Your task to perform on an android device: install app "VLC for Android" Image 0: 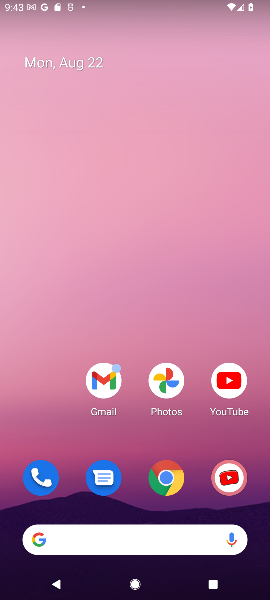
Step 0: drag from (126, 513) to (136, 70)
Your task to perform on an android device: install app "VLC for Android" Image 1: 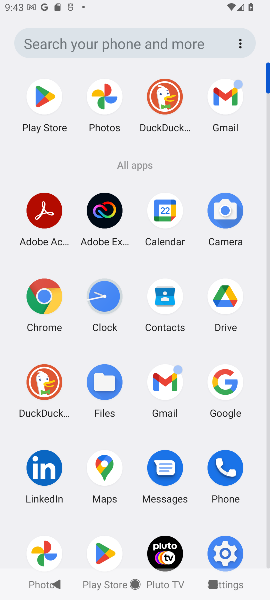
Step 1: click (31, 119)
Your task to perform on an android device: install app "VLC for Android" Image 2: 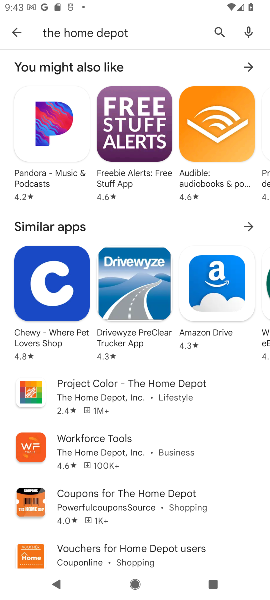
Step 2: click (214, 39)
Your task to perform on an android device: install app "VLC for Android" Image 3: 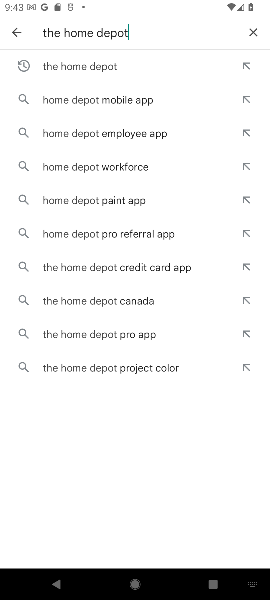
Step 3: click (248, 31)
Your task to perform on an android device: install app "VLC for Android" Image 4: 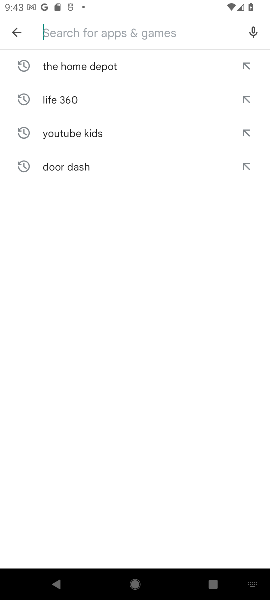
Step 4: type "vlc"
Your task to perform on an android device: install app "VLC for Android" Image 5: 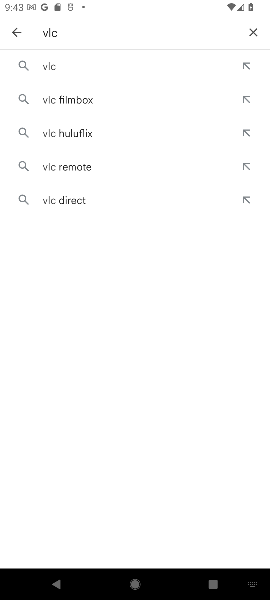
Step 5: click (42, 67)
Your task to perform on an android device: install app "VLC for Android" Image 6: 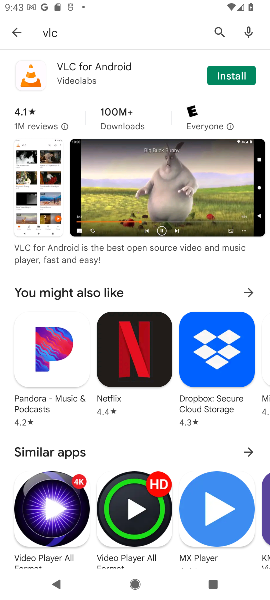
Step 6: click (219, 67)
Your task to perform on an android device: install app "VLC for Android" Image 7: 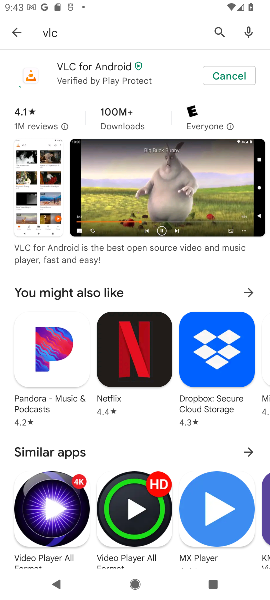
Step 7: task complete